Your task to perform on an android device: change text size in settings app Image 0: 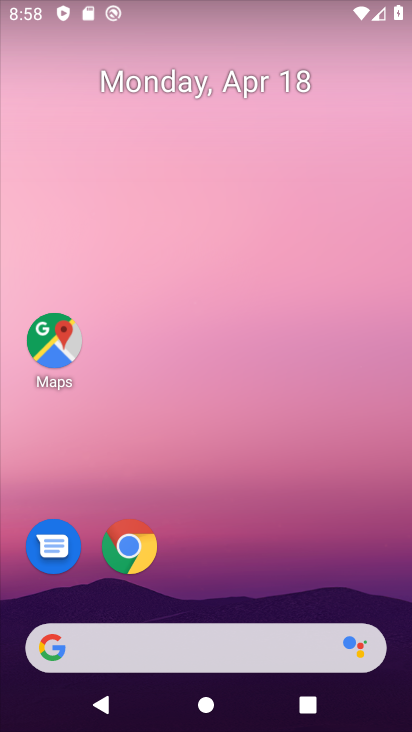
Step 0: drag from (283, 265) to (265, 81)
Your task to perform on an android device: change text size in settings app Image 1: 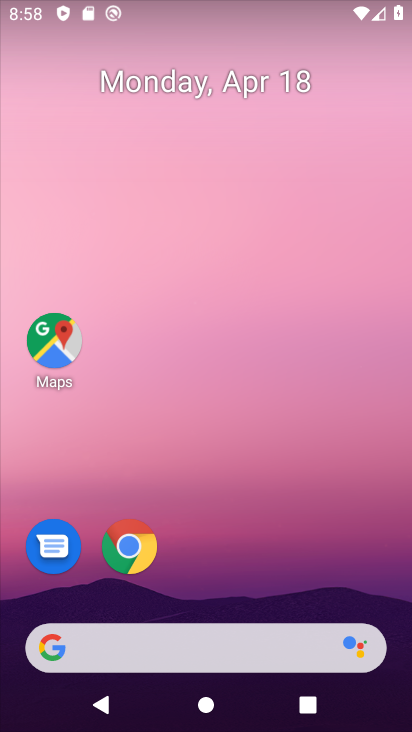
Step 1: drag from (349, 533) to (233, 40)
Your task to perform on an android device: change text size in settings app Image 2: 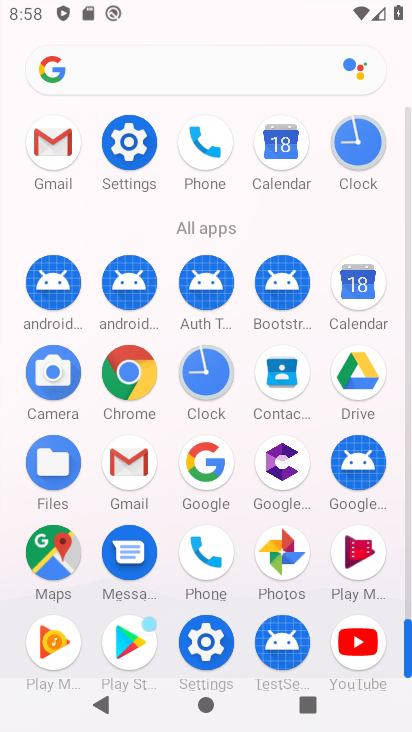
Step 2: click (117, 157)
Your task to perform on an android device: change text size in settings app Image 3: 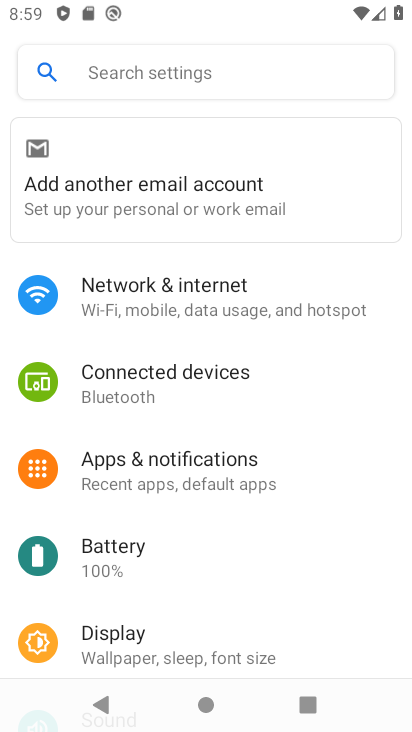
Step 3: drag from (129, 447) to (130, 126)
Your task to perform on an android device: change text size in settings app Image 4: 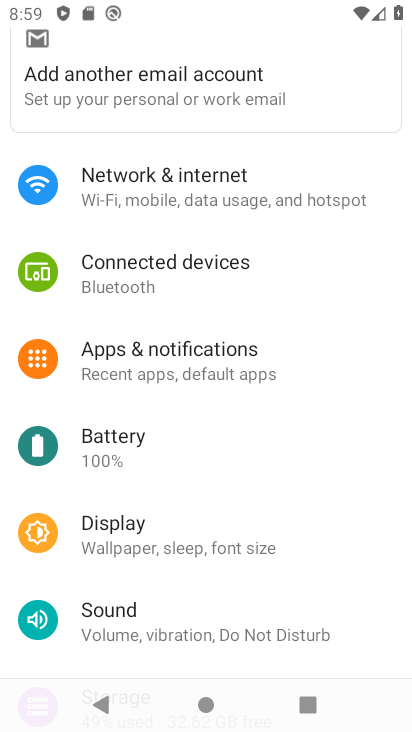
Step 4: drag from (211, 546) to (154, 266)
Your task to perform on an android device: change text size in settings app Image 5: 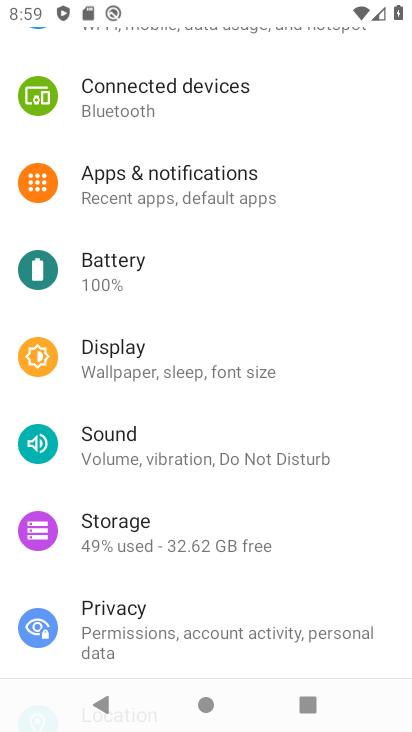
Step 5: drag from (220, 571) to (213, 234)
Your task to perform on an android device: change text size in settings app Image 6: 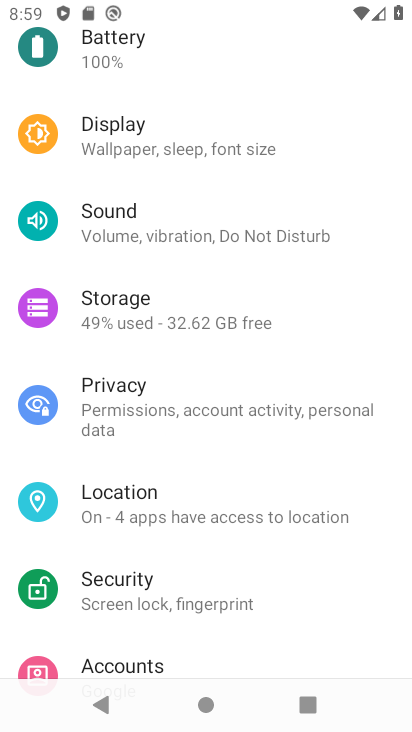
Step 6: drag from (213, 515) to (242, 194)
Your task to perform on an android device: change text size in settings app Image 7: 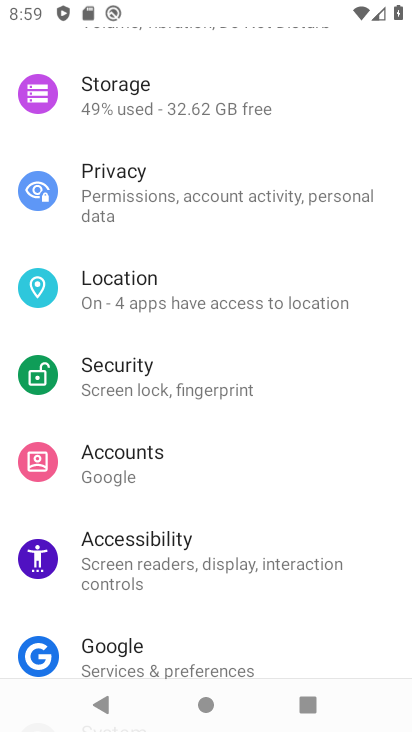
Step 7: drag from (206, 528) to (209, 244)
Your task to perform on an android device: change text size in settings app Image 8: 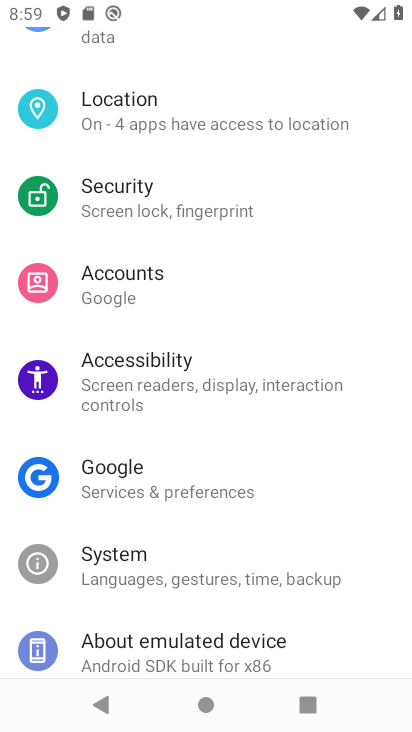
Step 8: drag from (237, 274) to (285, 480)
Your task to perform on an android device: change text size in settings app Image 9: 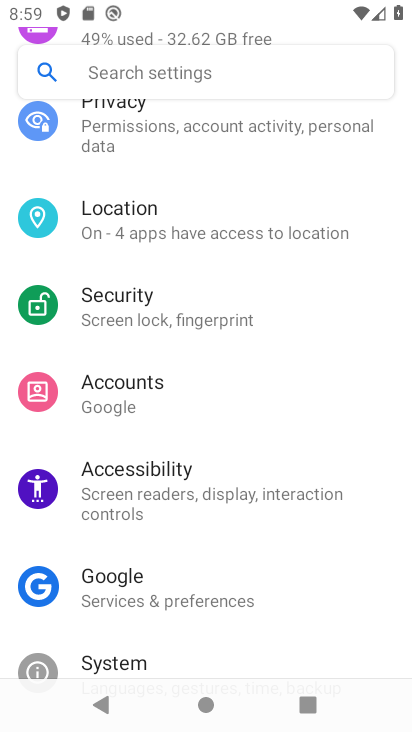
Step 9: drag from (246, 266) to (313, 489)
Your task to perform on an android device: change text size in settings app Image 10: 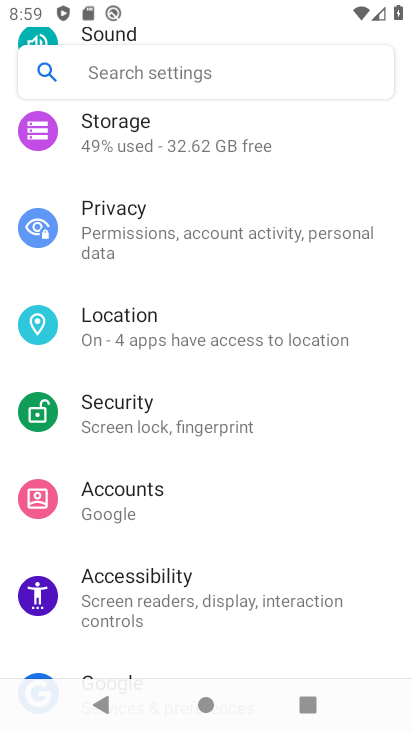
Step 10: drag from (257, 258) to (275, 499)
Your task to perform on an android device: change text size in settings app Image 11: 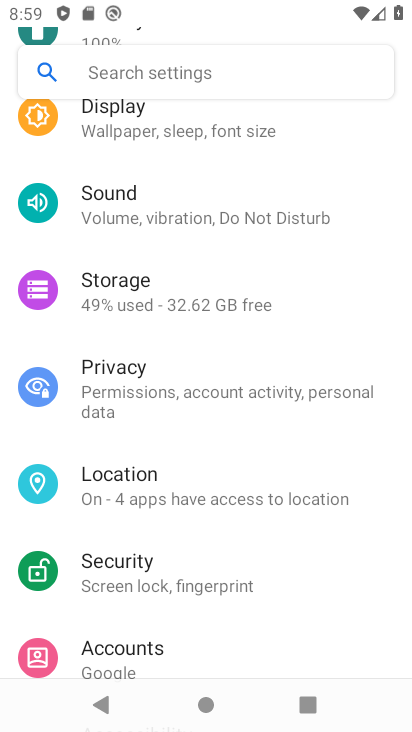
Step 11: drag from (280, 178) to (244, 361)
Your task to perform on an android device: change text size in settings app Image 12: 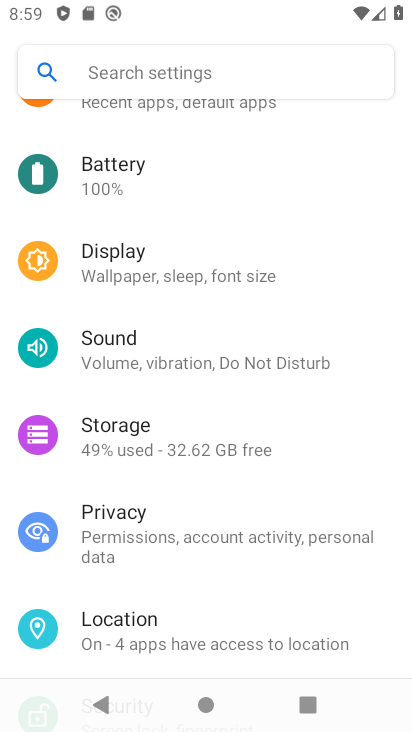
Step 12: click (208, 266)
Your task to perform on an android device: change text size in settings app Image 13: 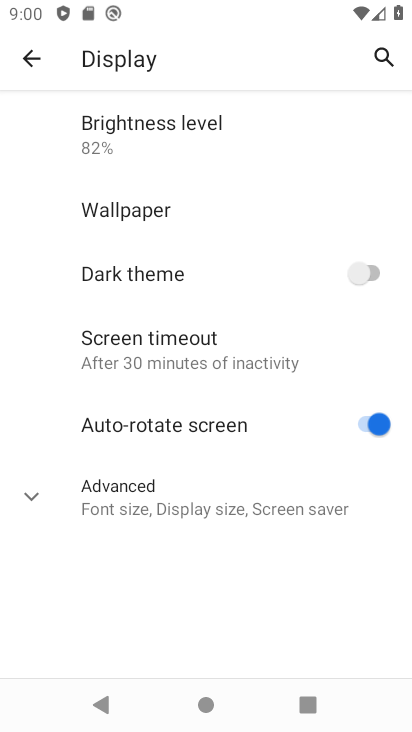
Step 13: click (227, 508)
Your task to perform on an android device: change text size in settings app Image 14: 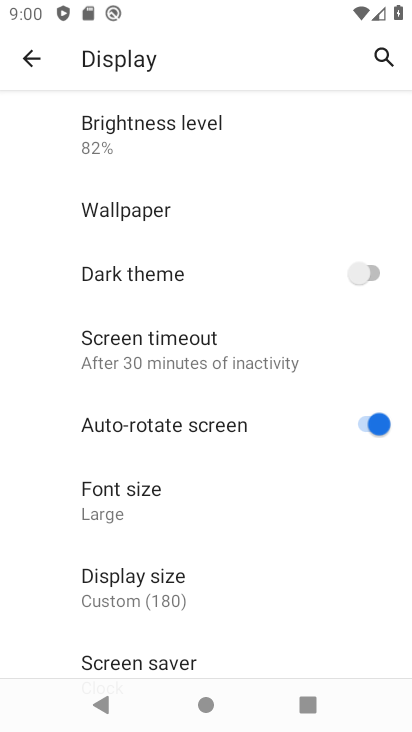
Step 14: drag from (275, 672) to (295, 346)
Your task to perform on an android device: change text size in settings app Image 15: 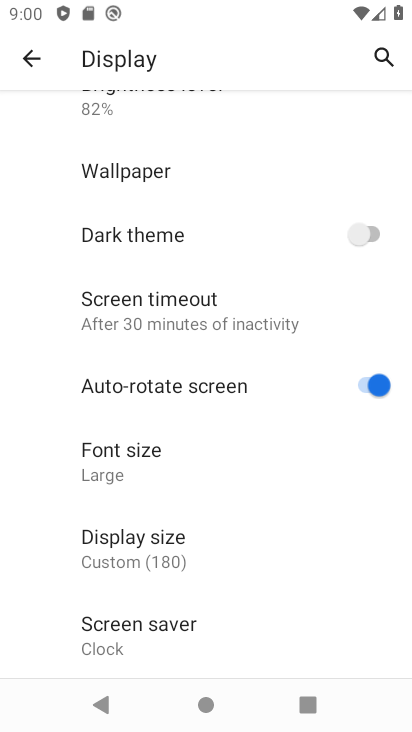
Step 15: click (125, 467)
Your task to perform on an android device: change text size in settings app Image 16: 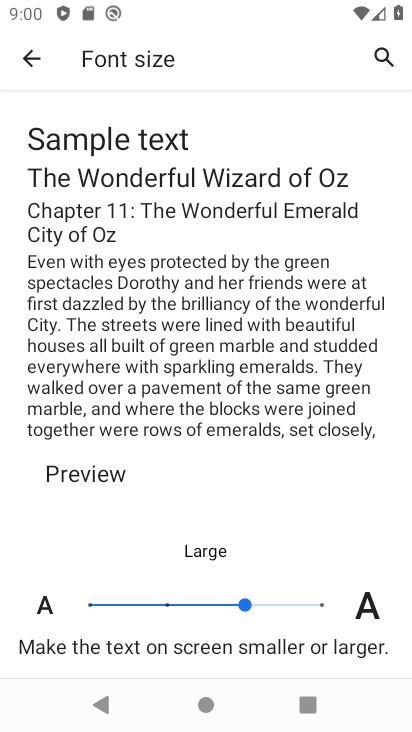
Step 16: click (219, 605)
Your task to perform on an android device: change text size in settings app Image 17: 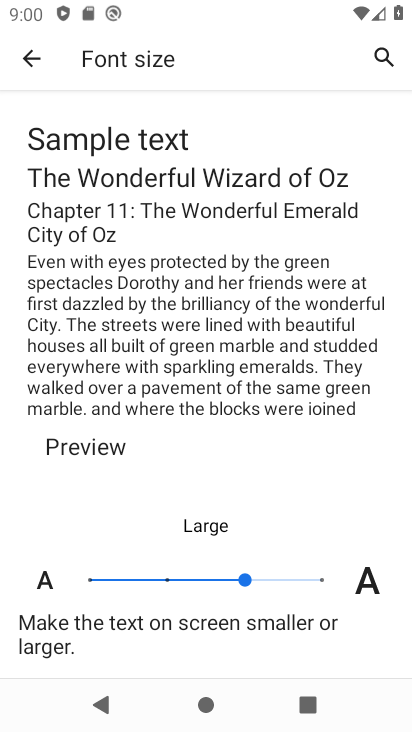
Step 17: click (200, 570)
Your task to perform on an android device: change text size in settings app Image 18: 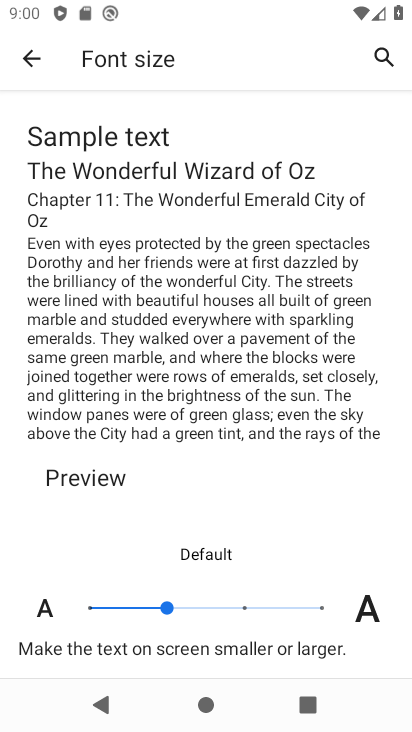
Step 18: task complete